Your task to perform on an android device: Open Google Maps and go to "Timeline" Image 0: 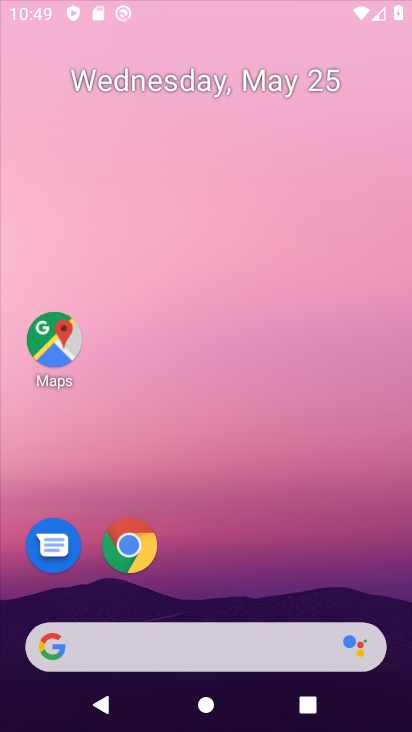
Step 0: click (281, 112)
Your task to perform on an android device: Open Google Maps and go to "Timeline" Image 1: 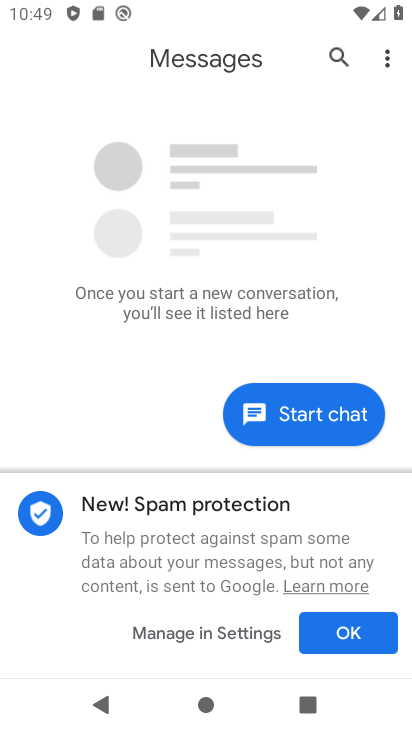
Step 1: press home button
Your task to perform on an android device: Open Google Maps and go to "Timeline" Image 2: 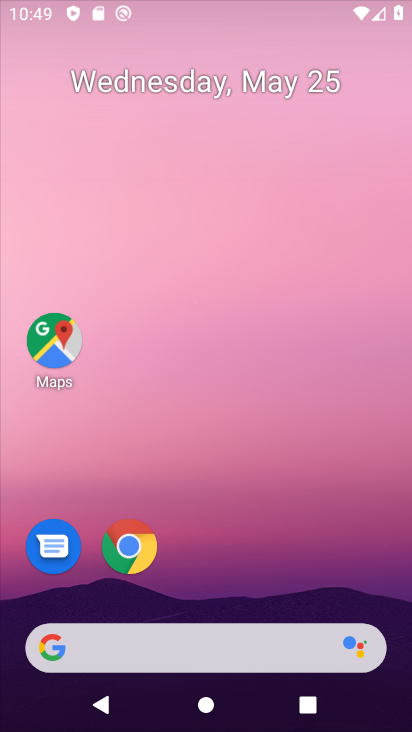
Step 2: drag from (370, 555) to (293, 114)
Your task to perform on an android device: Open Google Maps and go to "Timeline" Image 3: 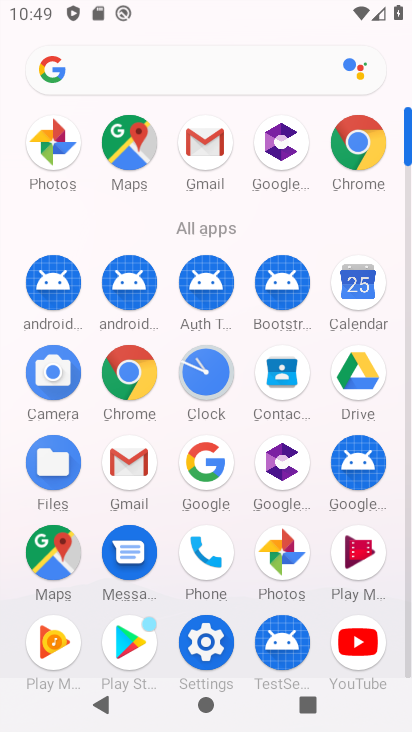
Step 3: click (82, 525)
Your task to perform on an android device: Open Google Maps and go to "Timeline" Image 4: 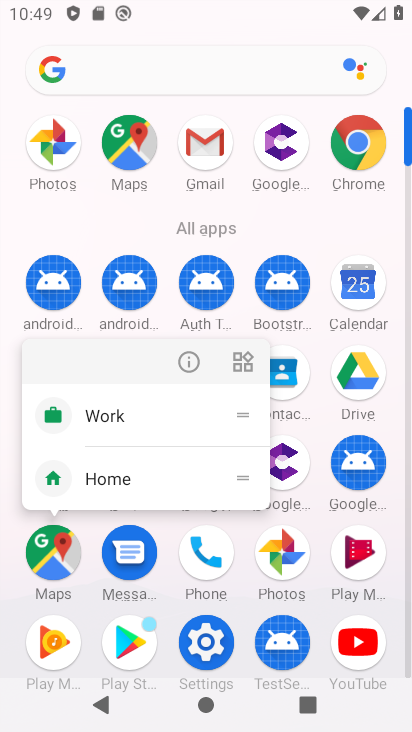
Step 4: click (58, 535)
Your task to perform on an android device: Open Google Maps and go to "Timeline" Image 5: 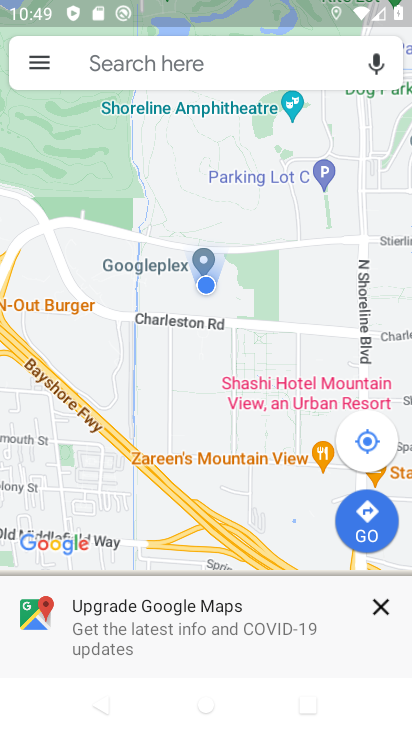
Step 5: click (51, 68)
Your task to perform on an android device: Open Google Maps and go to "Timeline" Image 6: 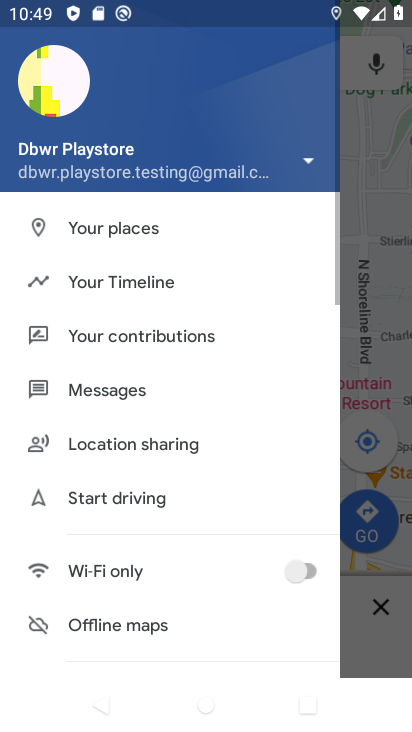
Step 6: click (104, 274)
Your task to perform on an android device: Open Google Maps and go to "Timeline" Image 7: 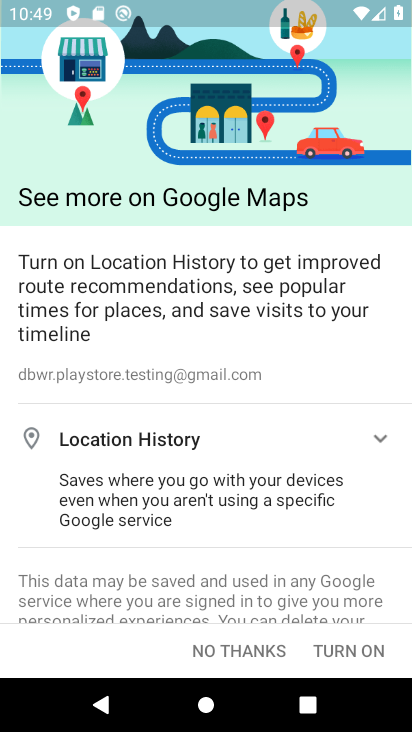
Step 7: click (260, 658)
Your task to perform on an android device: Open Google Maps and go to "Timeline" Image 8: 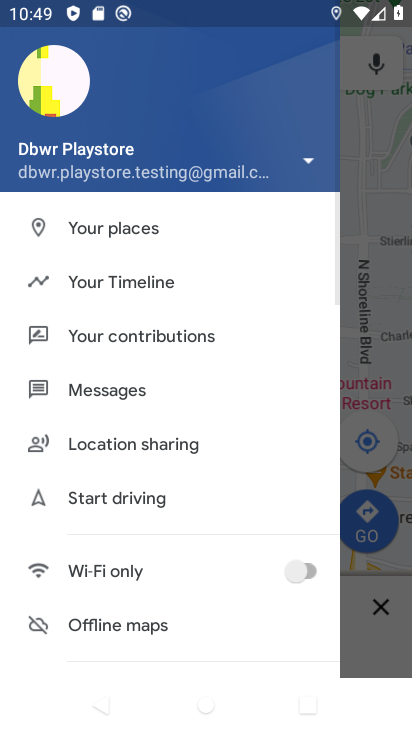
Step 8: click (136, 279)
Your task to perform on an android device: Open Google Maps and go to "Timeline" Image 9: 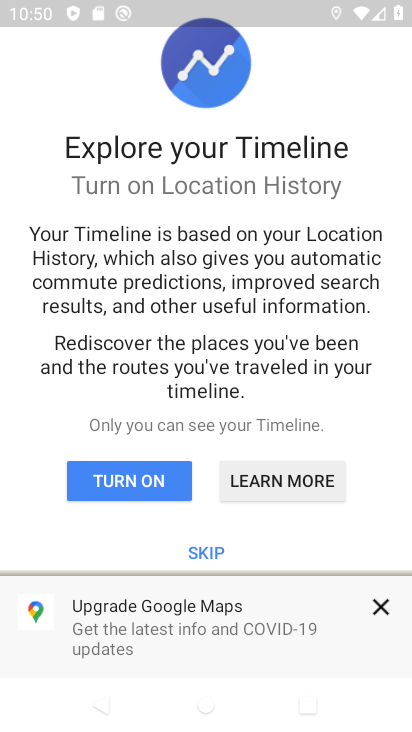
Step 9: click (208, 552)
Your task to perform on an android device: Open Google Maps and go to "Timeline" Image 10: 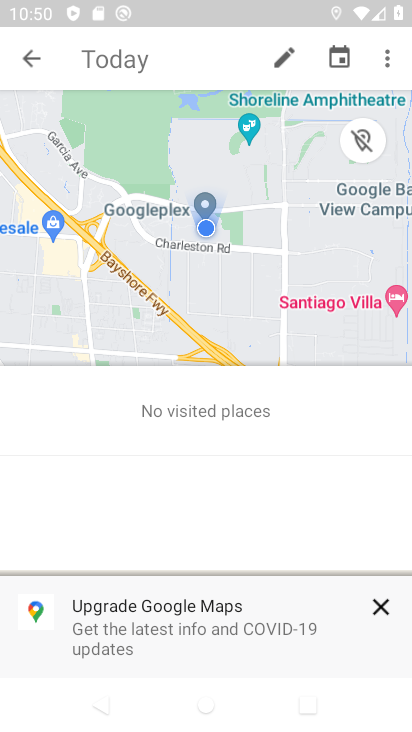
Step 10: task complete